Your task to perform on an android device: Open Yahoo.com Image 0: 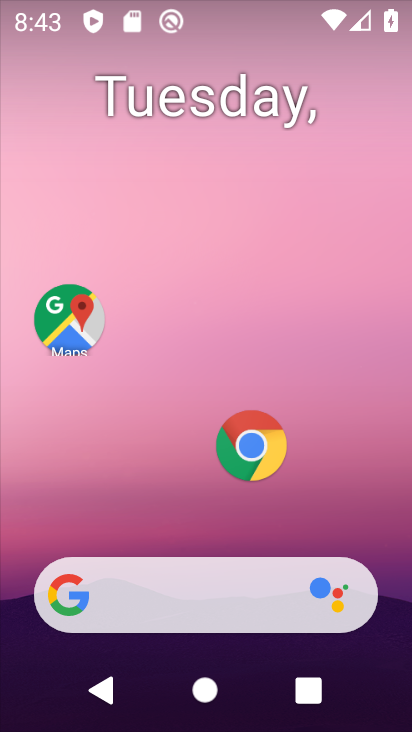
Step 0: click (189, 621)
Your task to perform on an android device: Open Yahoo.com Image 1: 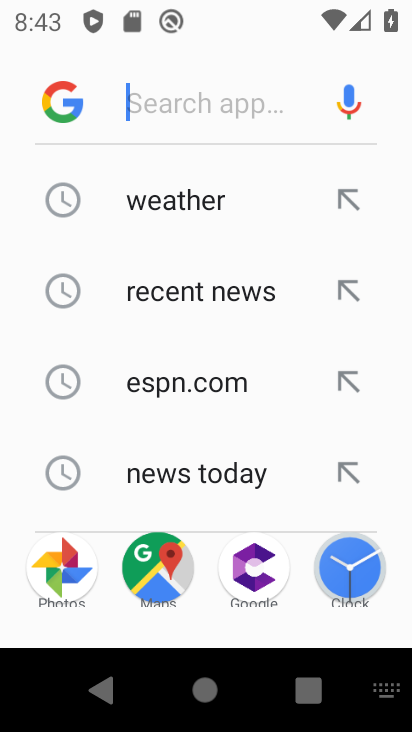
Step 1: type "Yahoo.com"
Your task to perform on an android device: Open Yahoo.com Image 2: 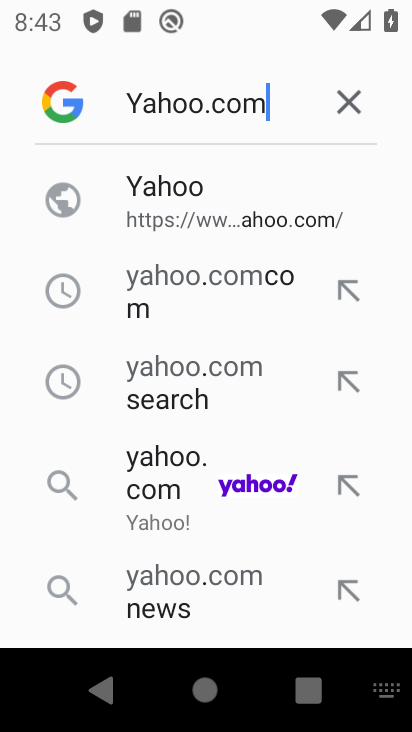
Step 2: click (240, 206)
Your task to perform on an android device: Open Yahoo.com Image 3: 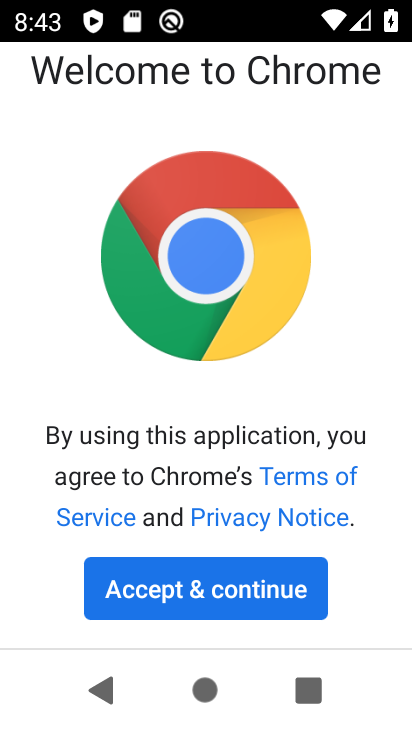
Step 3: click (138, 627)
Your task to perform on an android device: Open Yahoo.com Image 4: 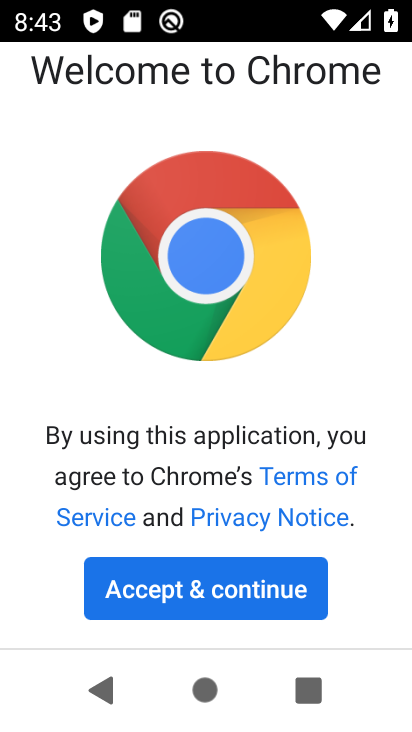
Step 4: click (150, 608)
Your task to perform on an android device: Open Yahoo.com Image 5: 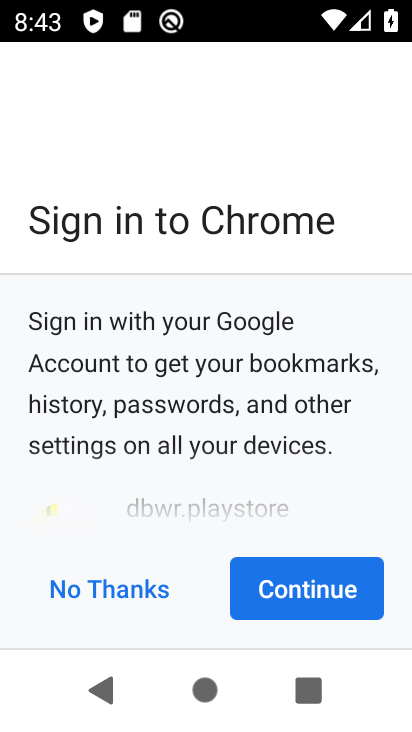
Step 5: click (320, 606)
Your task to perform on an android device: Open Yahoo.com Image 6: 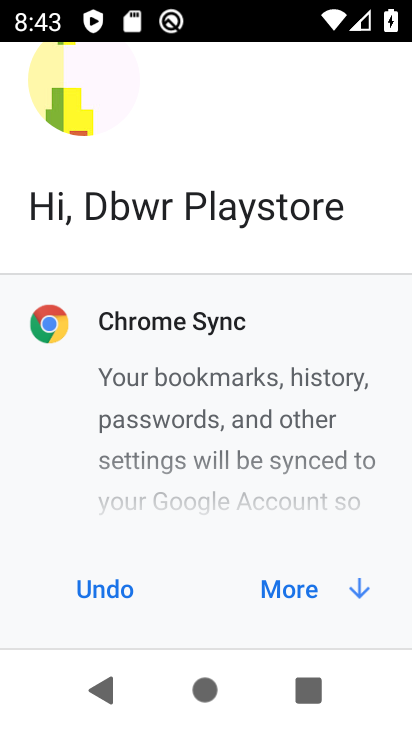
Step 6: click (320, 606)
Your task to perform on an android device: Open Yahoo.com Image 7: 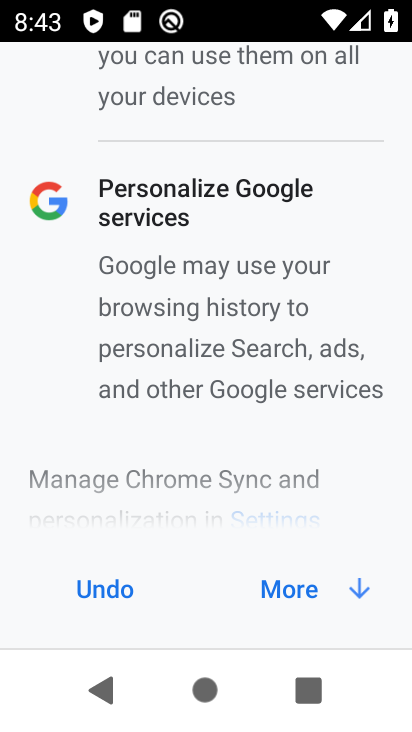
Step 7: click (320, 606)
Your task to perform on an android device: Open Yahoo.com Image 8: 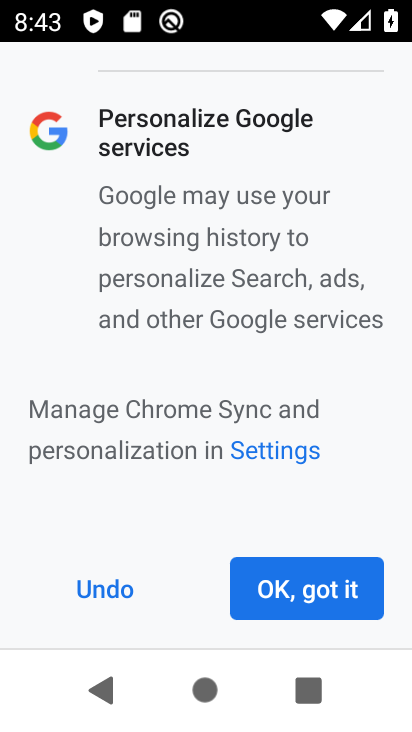
Step 8: click (320, 606)
Your task to perform on an android device: Open Yahoo.com Image 9: 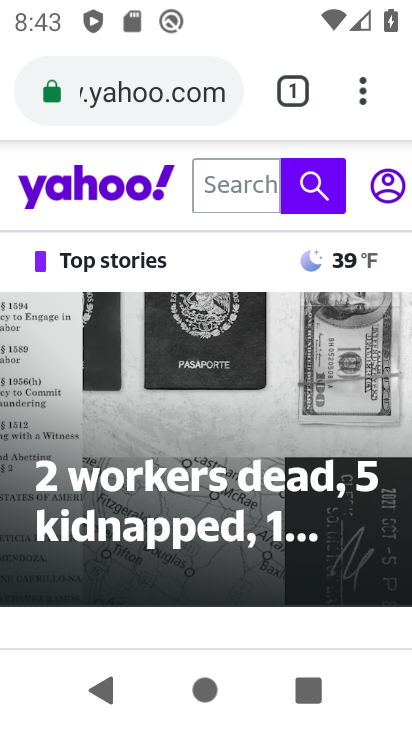
Step 9: task complete